Your task to perform on an android device: Search for bose soundlink on ebay, select the first entry, add it to the cart, then select checkout. Image 0: 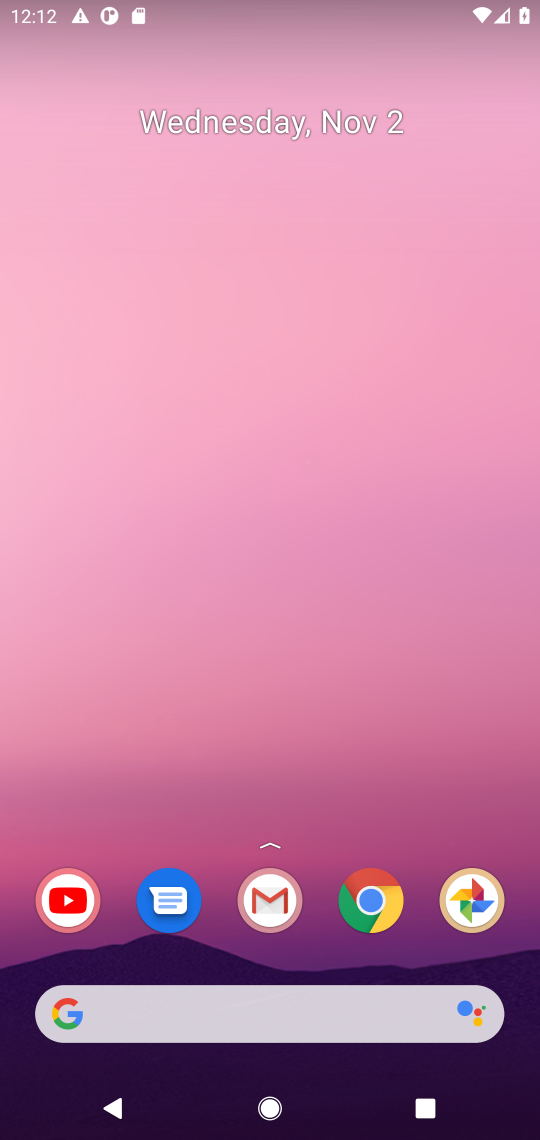
Step 0: click (356, 899)
Your task to perform on an android device: Search for bose soundlink on ebay, select the first entry, add it to the cart, then select checkout. Image 1: 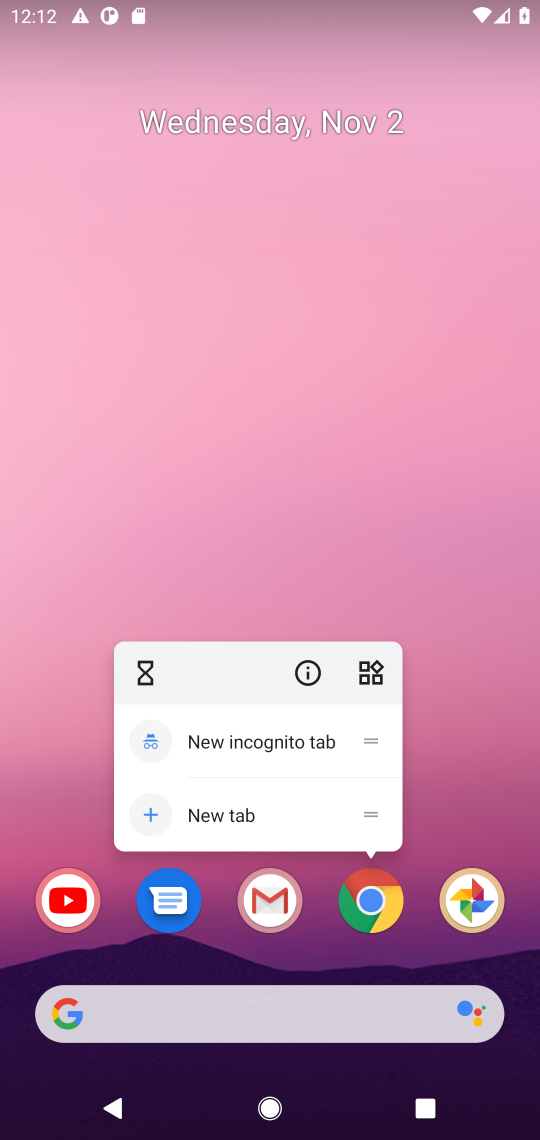
Step 1: click (367, 899)
Your task to perform on an android device: Search for bose soundlink on ebay, select the first entry, add it to the cart, then select checkout. Image 2: 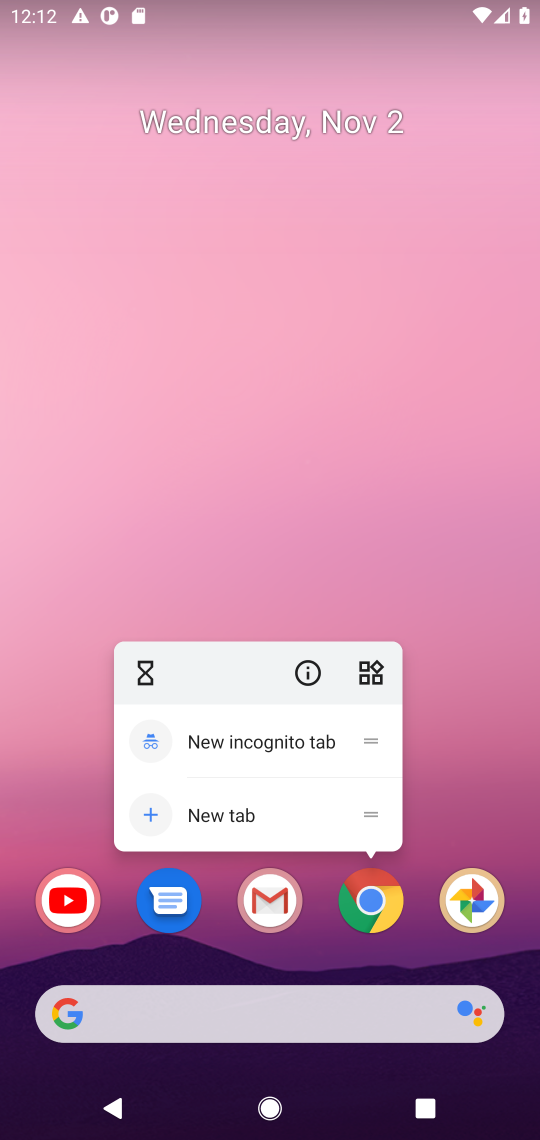
Step 2: click (369, 907)
Your task to perform on an android device: Search for bose soundlink on ebay, select the first entry, add it to the cart, then select checkout. Image 3: 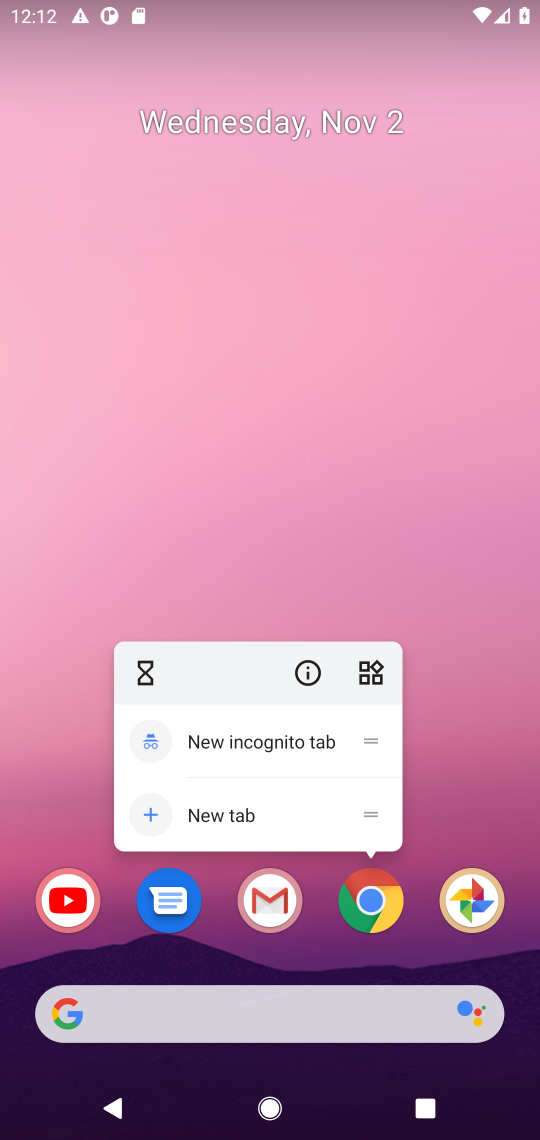
Step 3: click (384, 903)
Your task to perform on an android device: Search for bose soundlink on ebay, select the first entry, add it to the cart, then select checkout. Image 4: 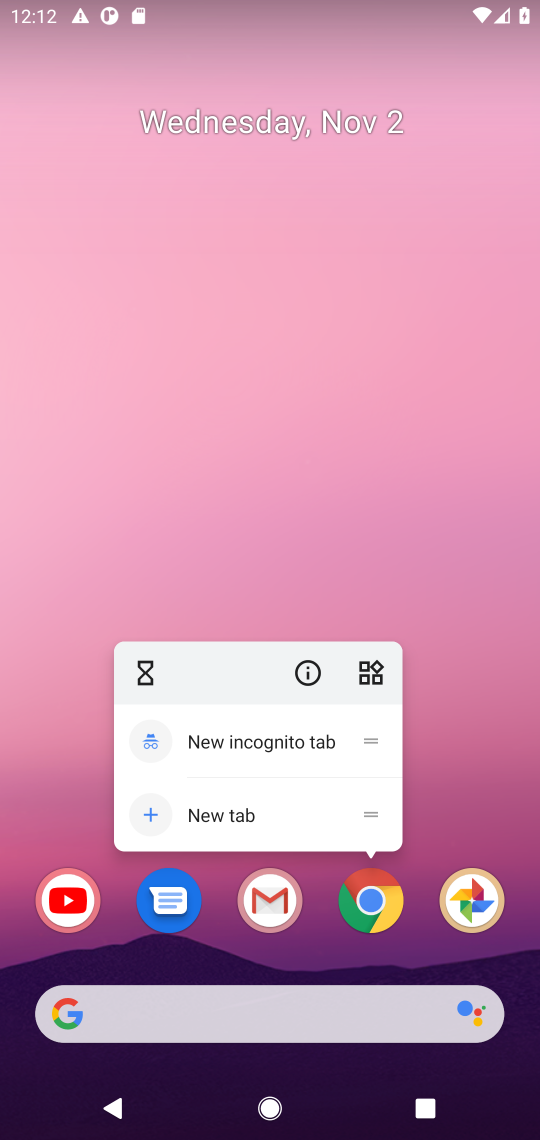
Step 4: click (384, 903)
Your task to perform on an android device: Search for bose soundlink on ebay, select the first entry, add it to the cart, then select checkout. Image 5: 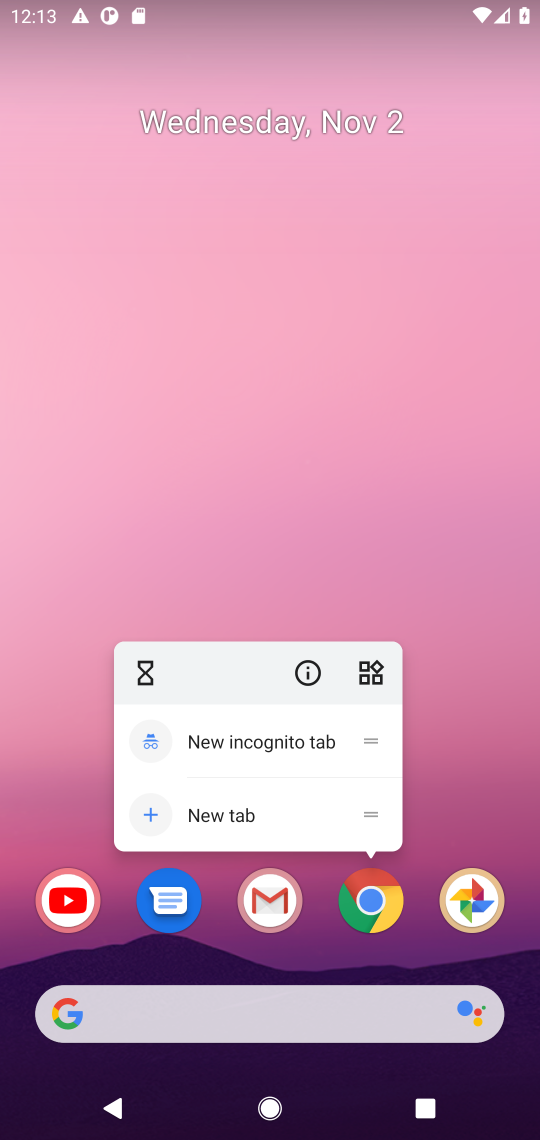
Step 5: click (374, 901)
Your task to perform on an android device: Search for bose soundlink on ebay, select the first entry, add it to the cart, then select checkout. Image 6: 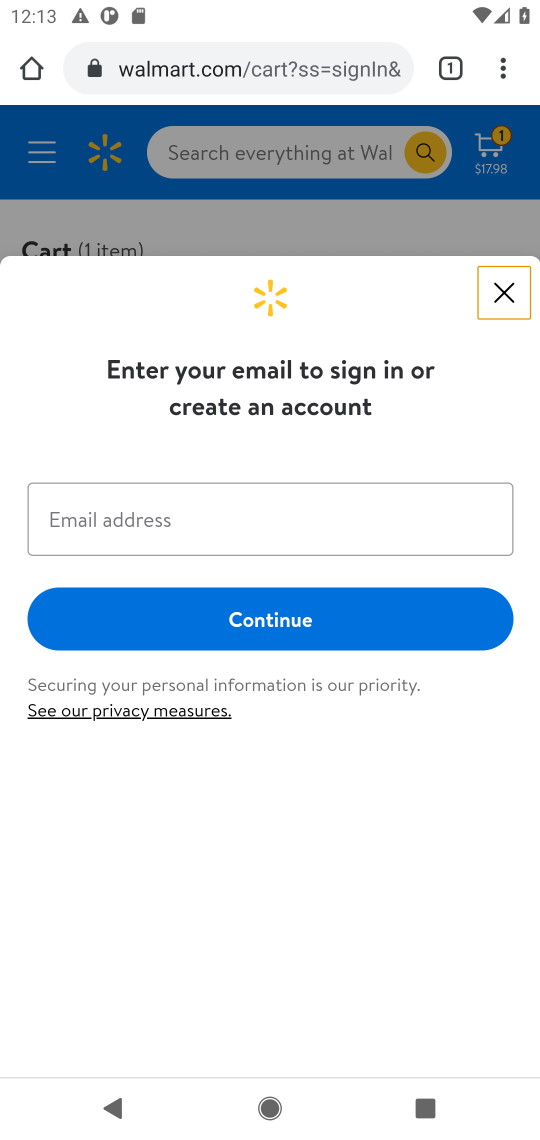
Step 6: click (280, 75)
Your task to perform on an android device: Search for bose soundlink on ebay, select the first entry, add it to the cart, then select checkout. Image 7: 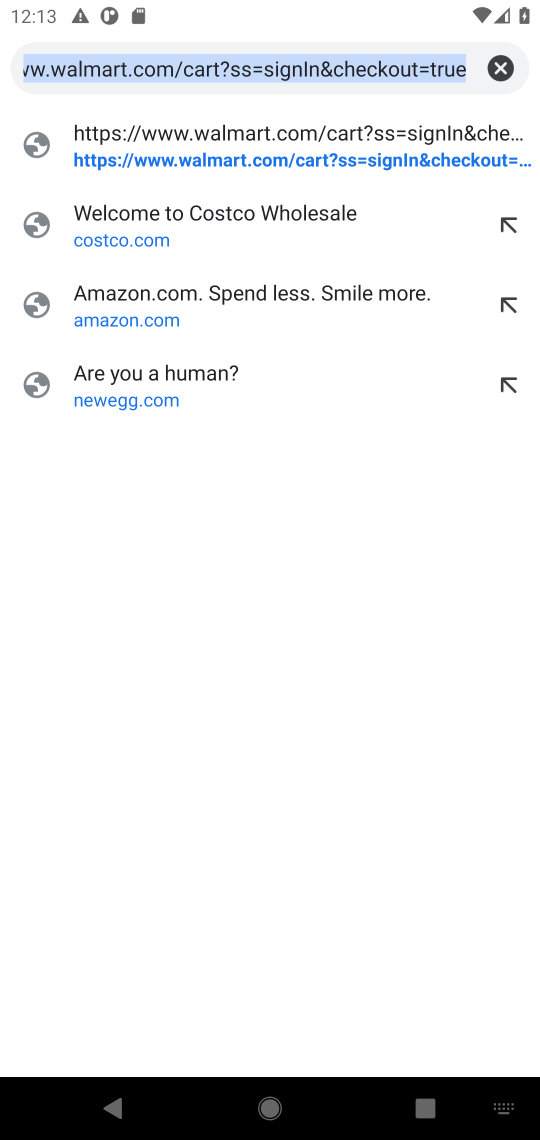
Step 7: click (501, 68)
Your task to perform on an android device: Search for bose soundlink on ebay, select the first entry, add it to the cart, then select checkout. Image 8: 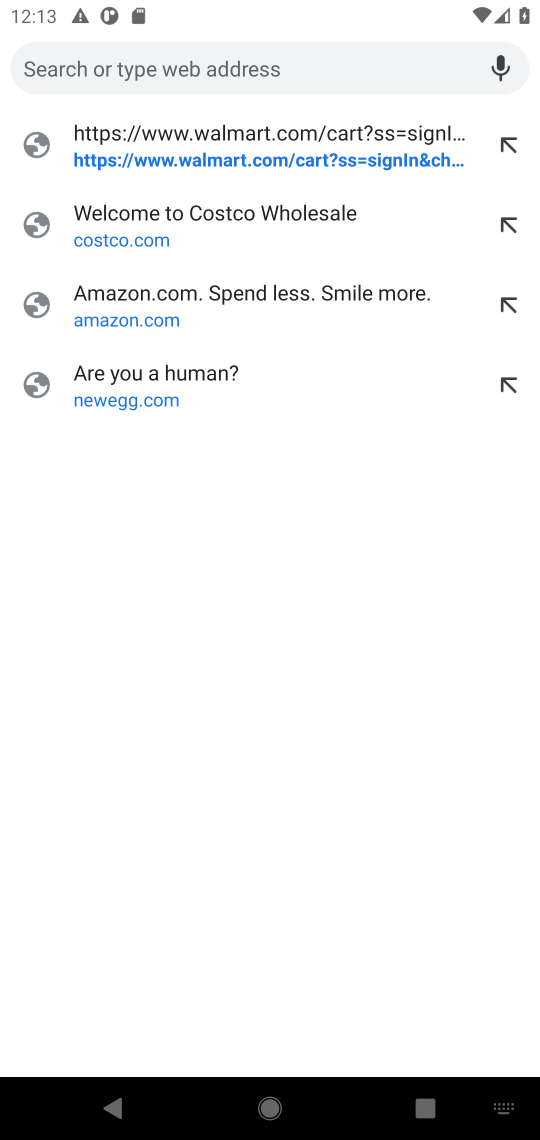
Step 8: type "ebay"
Your task to perform on an android device: Search for bose soundlink on ebay, select the first entry, add it to the cart, then select checkout. Image 9: 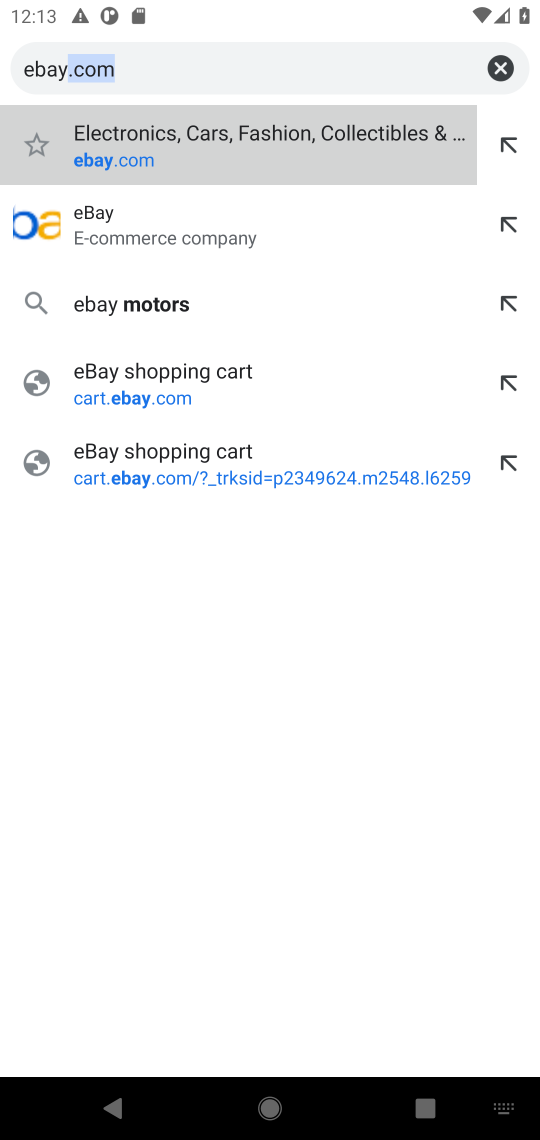
Step 9: click (142, 249)
Your task to perform on an android device: Search for bose soundlink on ebay, select the first entry, add it to the cart, then select checkout. Image 10: 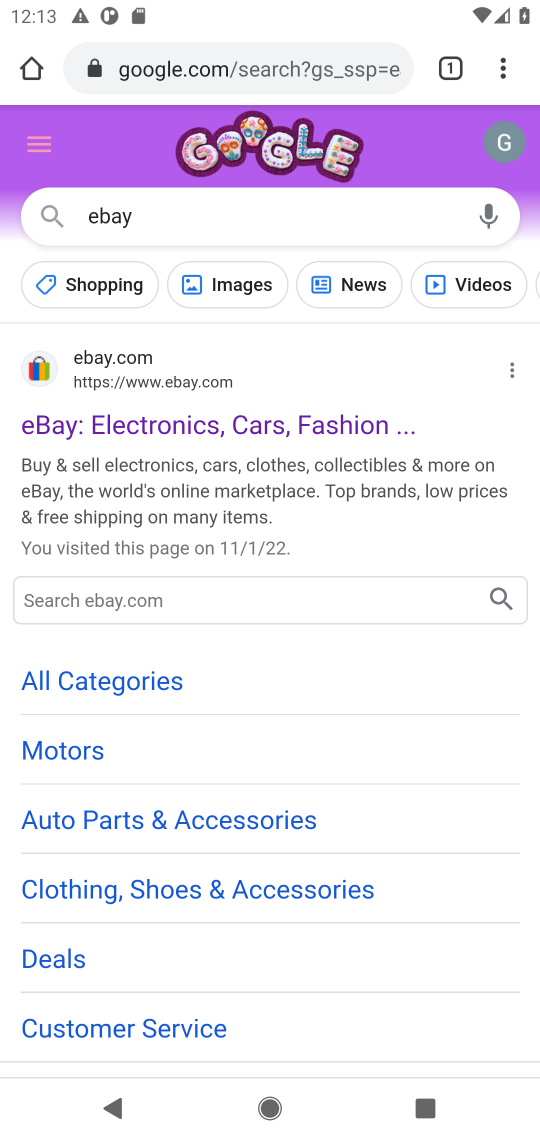
Step 10: click (148, 417)
Your task to perform on an android device: Search for bose soundlink on ebay, select the first entry, add it to the cart, then select checkout. Image 11: 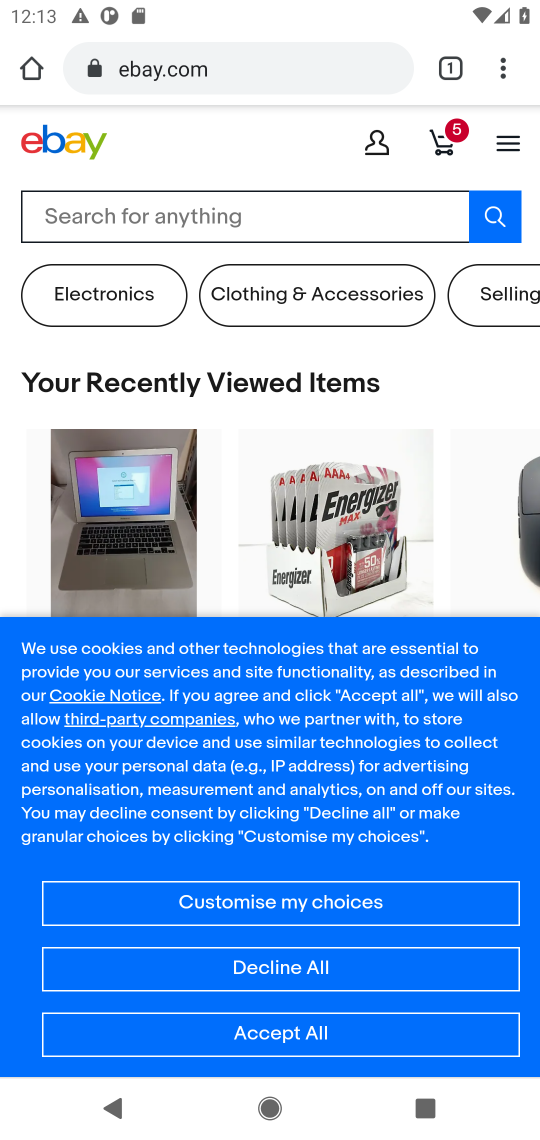
Step 11: click (100, 205)
Your task to perform on an android device: Search for bose soundlink on ebay, select the first entry, add it to the cart, then select checkout. Image 12: 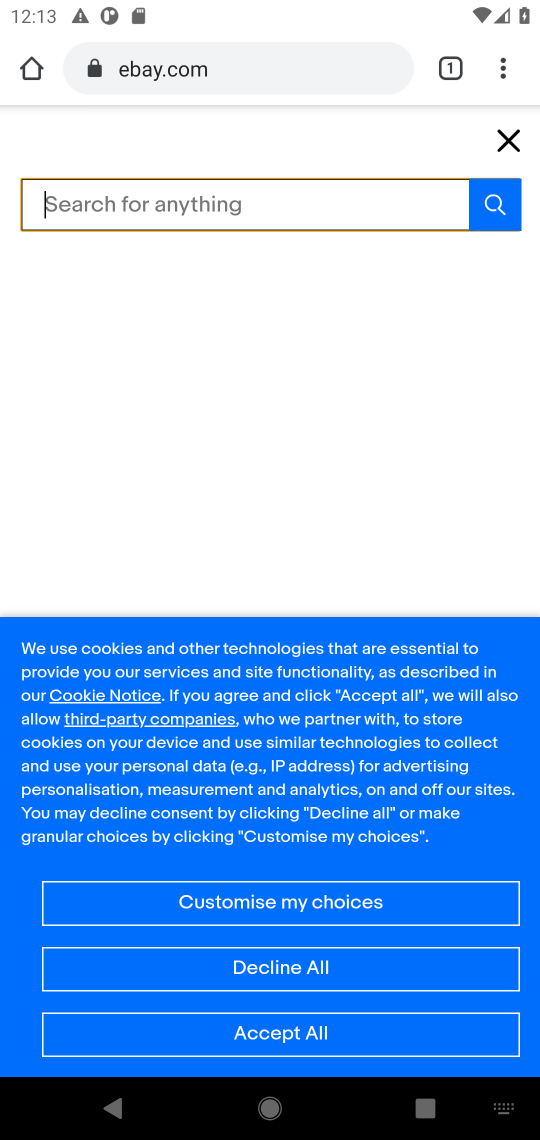
Step 12: type " bose soundlink"
Your task to perform on an android device: Search for bose soundlink on ebay, select the first entry, add it to the cart, then select checkout. Image 13: 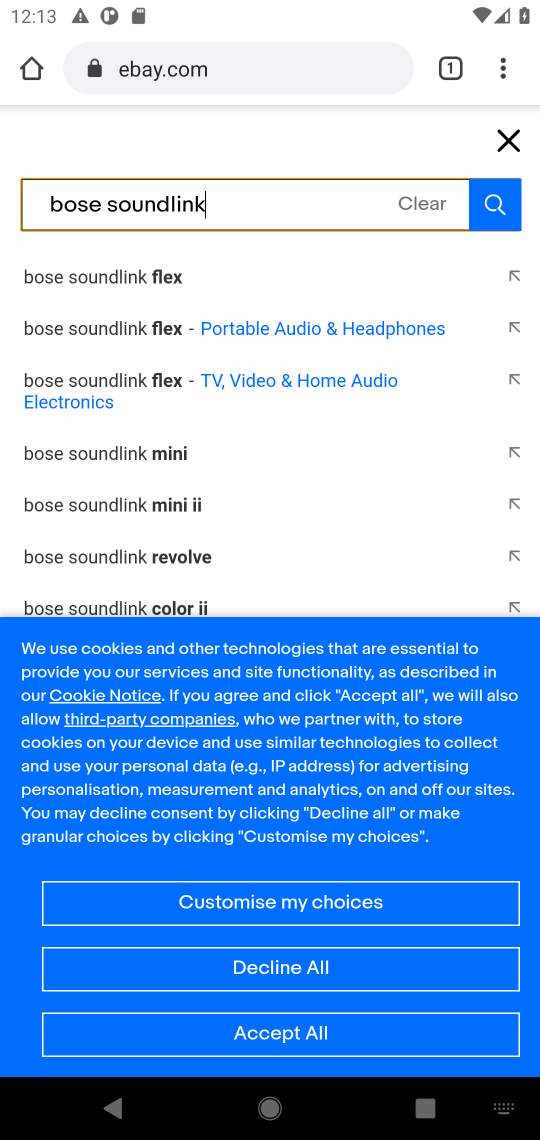
Step 13: click (491, 213)
Your task to perform on an android device: Search for bose soundlink on ebay, select the first entry, add it to the cart, then select checkout. Image 14: 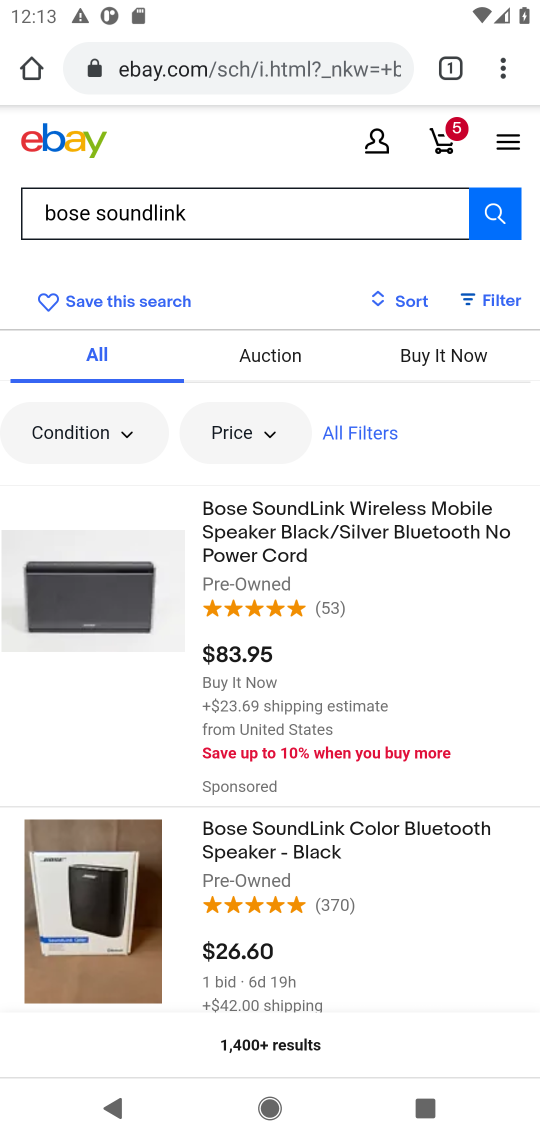
Step 14: click (307, 510)
Your task to perform on an android device: Search for bose soundlink on ebay, select the first entry, add it to the cart, then select checkout. Image 15: 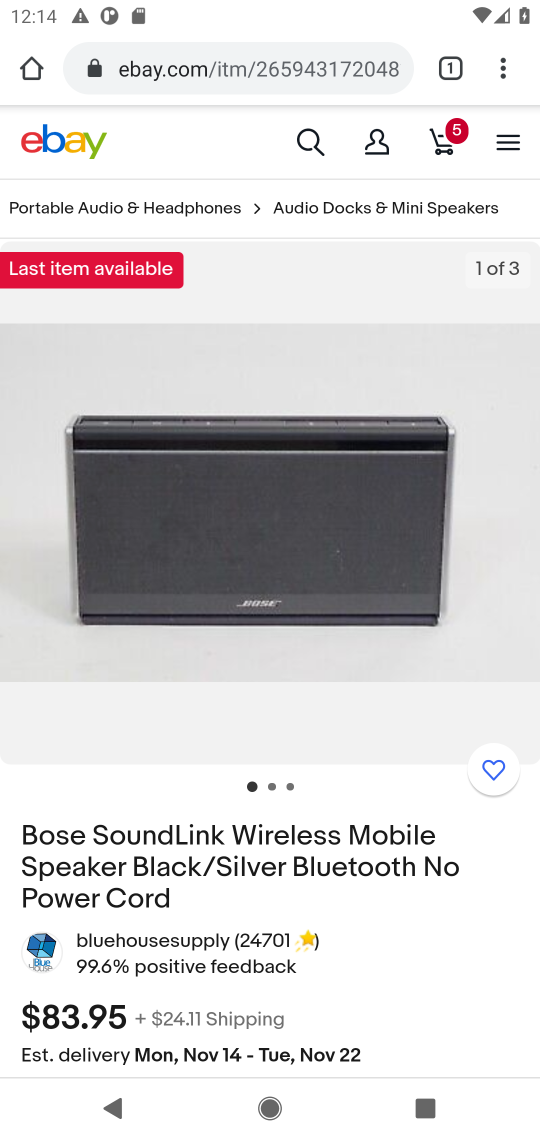
Step 15: drag from (311, 996) to (335, 336)
Your task to perform on an android device: Search for bose soundlink on ebay, select the first entry, add it to the cart, then select checkout. Image 16: 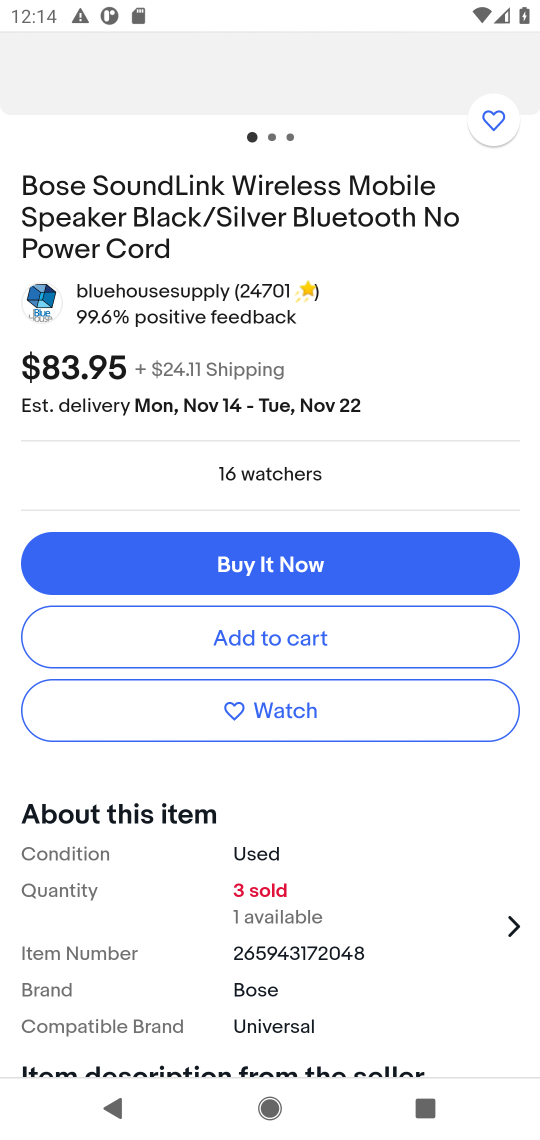
Step 16: click (286, 657)
Your task to perform on an android device: Search for bose soundlink on ebay, select the first entry, add it to the cart, then select checkout. Image 17: 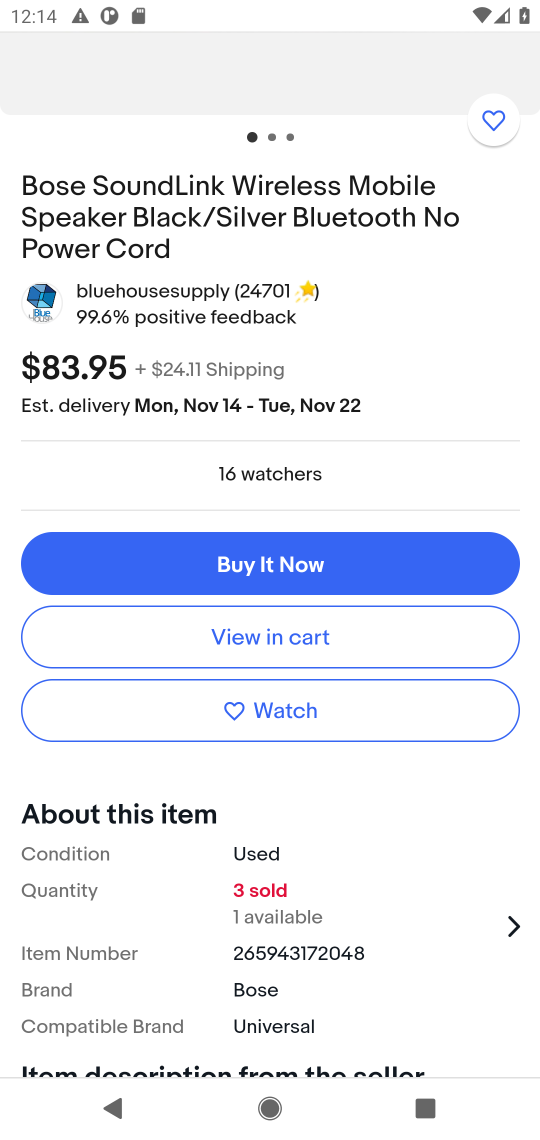
Step 17: click (286, 657)
Your task to perform on an android device: Search for bose soundlink on ebay, select the first entry, add it to the cart, then select checkout. Image 18: 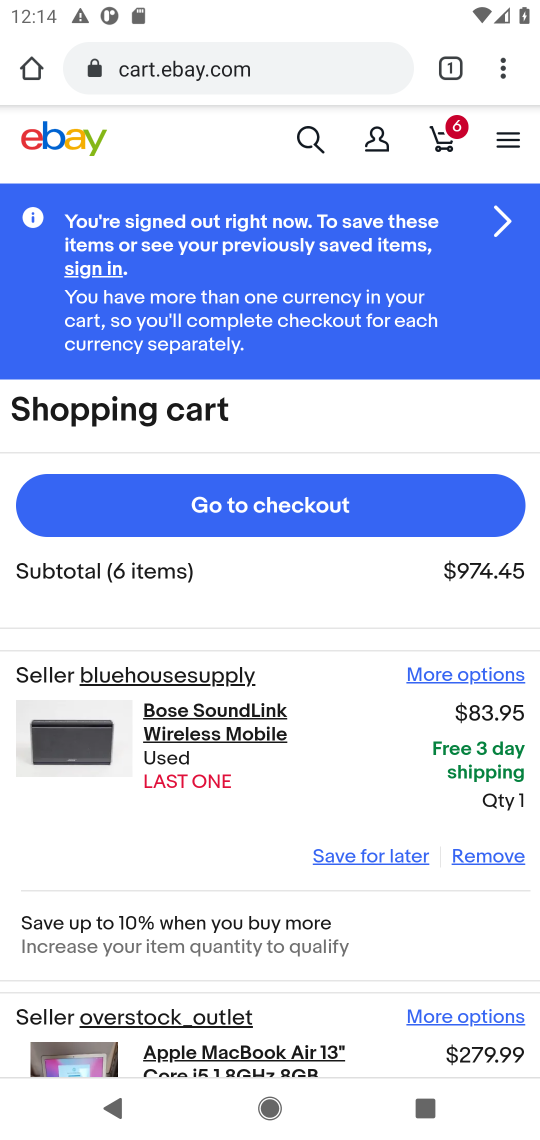
Step 18: click (104, 475)
Your task to perform on an android device: Search for bose soundlink on ebay, select the first entry, add it to the cart, then select checkout. Image 19: 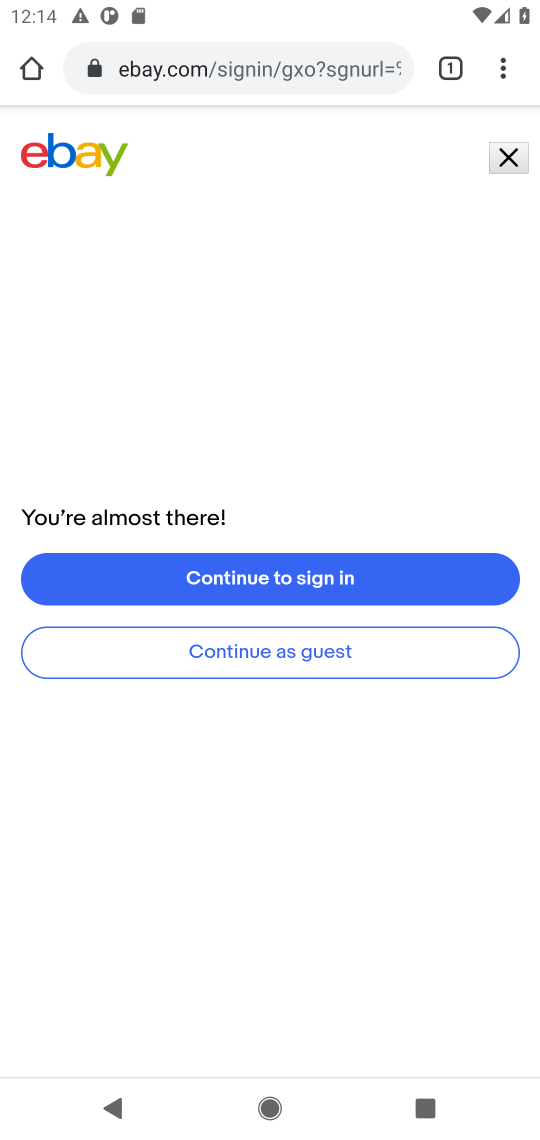
Step 19: task complete